Your task to perform on an android device: remove spam from my inbox in the gmail app Image 0: 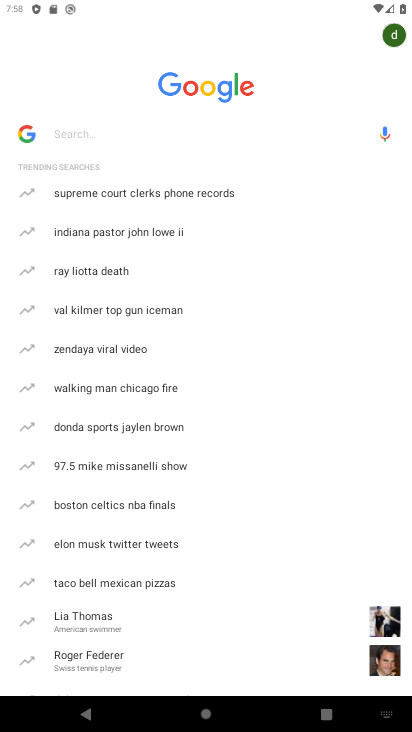
Step 0: press back button
Your task to perform on an android device: remove spam from my inbox in the gmail app Image 1: 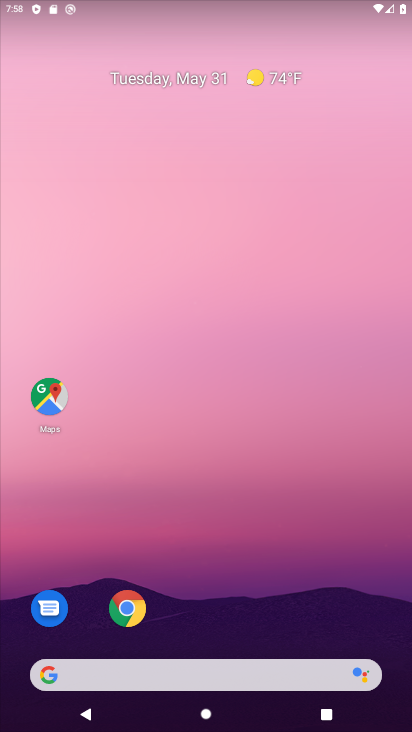
Step 1: drag from (221, 622) to (362, 8)
Your task to perform on an android device: remove spam from my inbox in the gmail app Image 2: 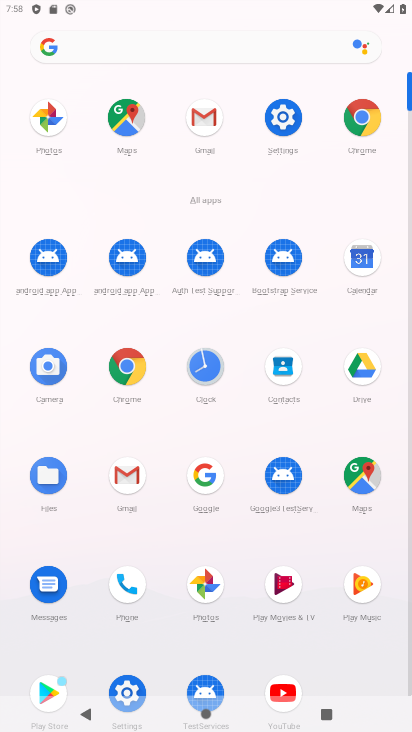
Step 2: click (119, 467)
Your task to perform on an android device: remove spam from my inbox in the gmail app Image 3: 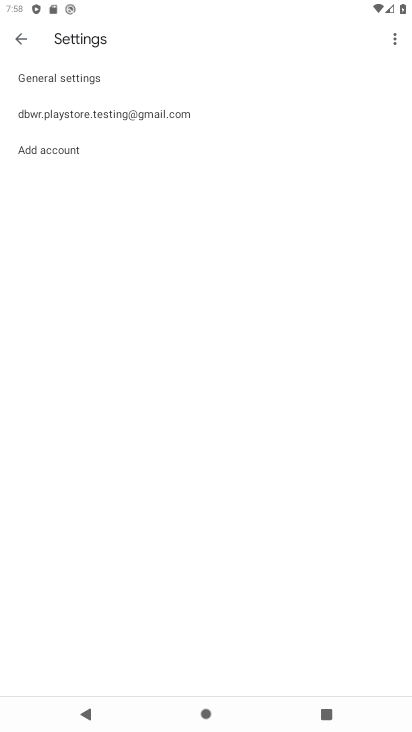
Step 3: click (82, 108)
Your task to perform on an android device: remove spam from my inbox in the gmail app Image 4: 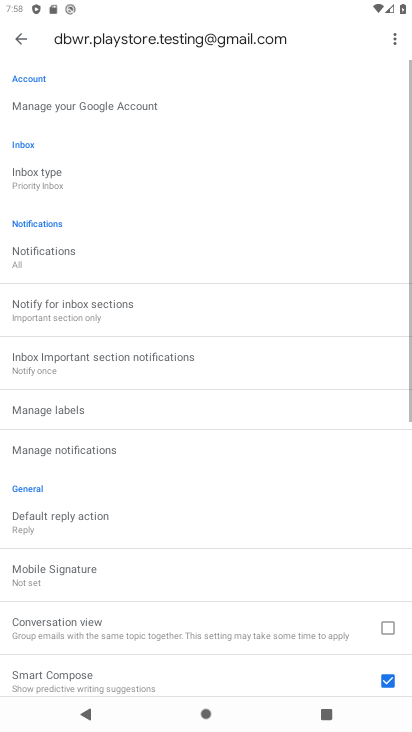
Step 4: click (23, 33)
Your task to perform on an android device: remove spam from my inbox in the gmail app Image 5: 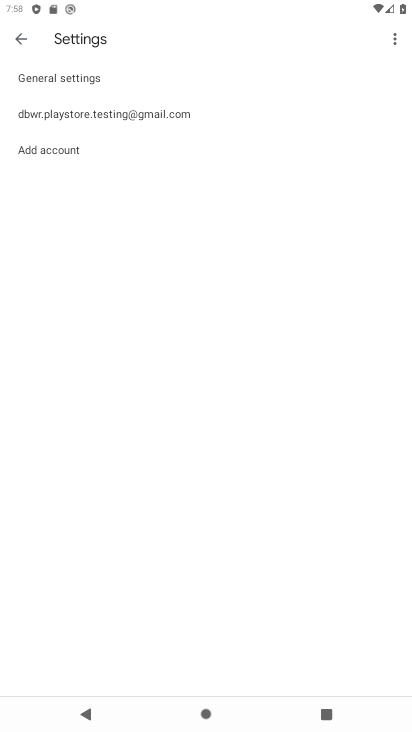
Step 5: click (23, 33)
Your task to perform on an android device: remove spam from my inbox in the gmail app Image 6: 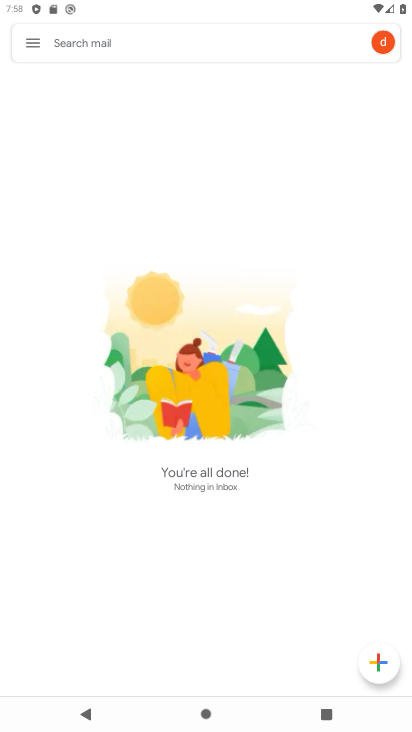
Step 6: task complete